Your task to perform on an android device: Open Youtube and go to the subscriptions tab Image 0: 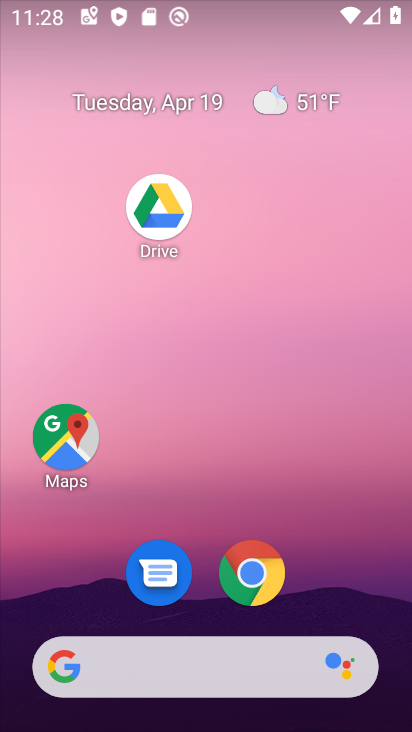
Step 0: drag from (340, 599) to (329, 136)
Your task to perform on an android device: Open Youtube and go to the subscriptions tab Image 1: 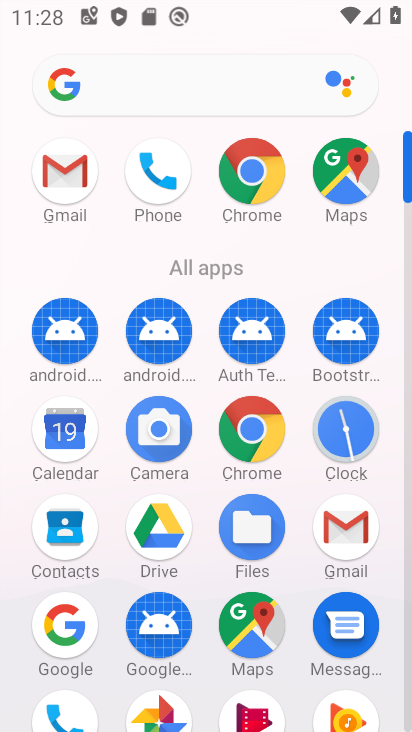
Step 1: drag from (387, 503) to (381, 229)
Your task to perform on an android device: Open Youtube and go to the subscriptions tab Image 2: 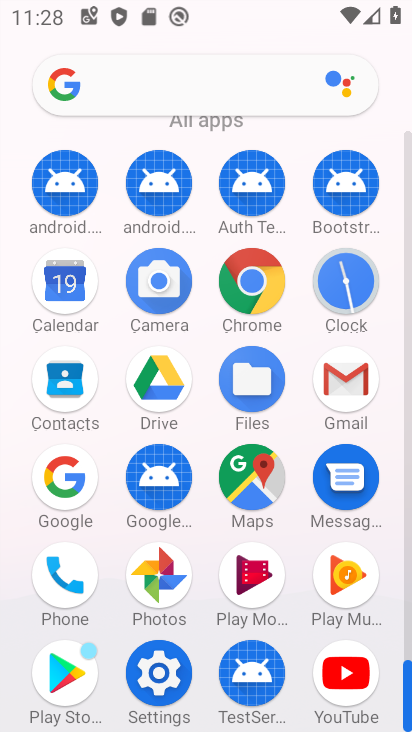
Step 2: click (332, 685)
Your task to perform on an android device: Open Youtube and go to the subscriptions tab Image 3: 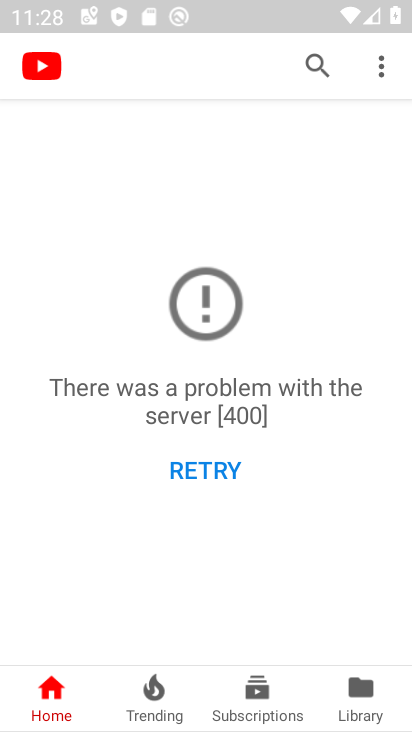
Step 3: click (238, 694)
Your task to perform on an android device: Open Youtube and go to the subscriptions tab Image 4: 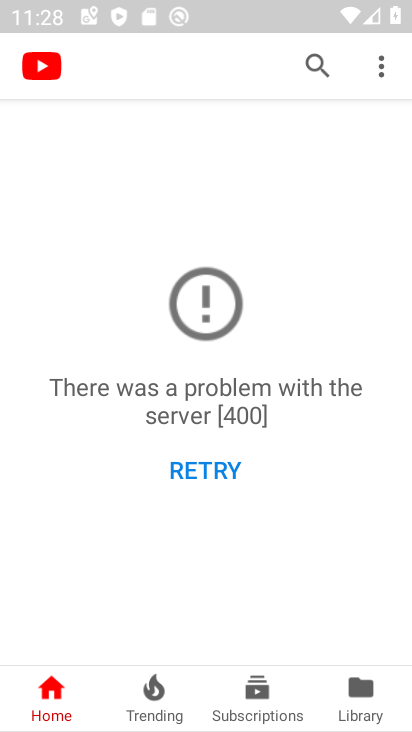
Step 4: task complete